Your task to perform on an android device: add a contact in the contacts app Image 0: 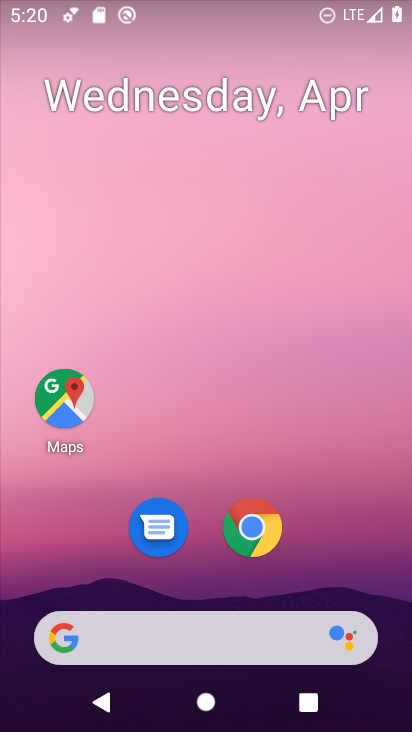
Step 0: drag from (344, 549) to (340, 5)
Your task to perform on an android device: add a contact in the contacts app Image 1: 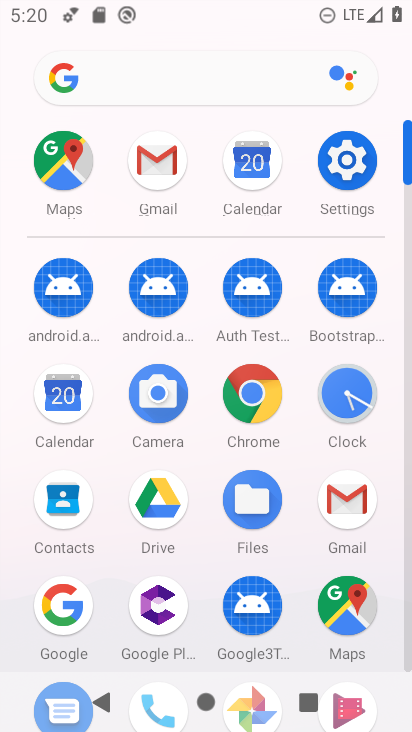
Step 1: click (73, 509)
Your task to perform on an android device: add a contact in the contacts app Image 2: 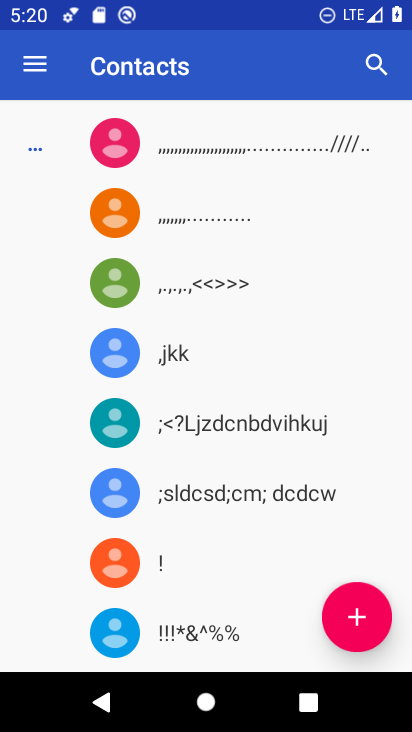
Step 2: click (366, 617)
Your task to perform on an android device: add a contact in the contacts app Image 3: 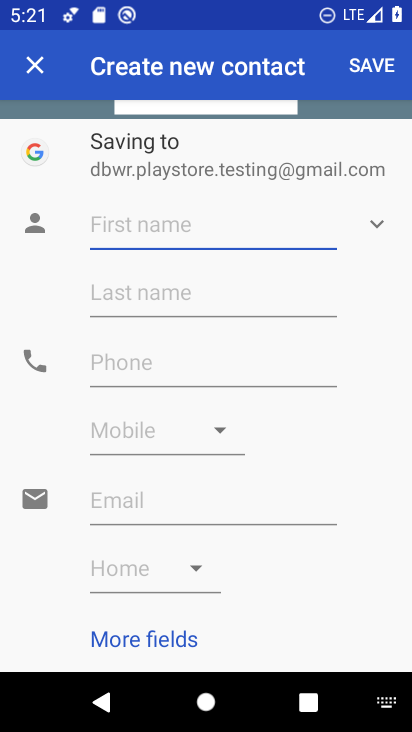
Step 3: click (140, 228)
Your task to perform on an android device: add a contact in the contacts app Image 4: 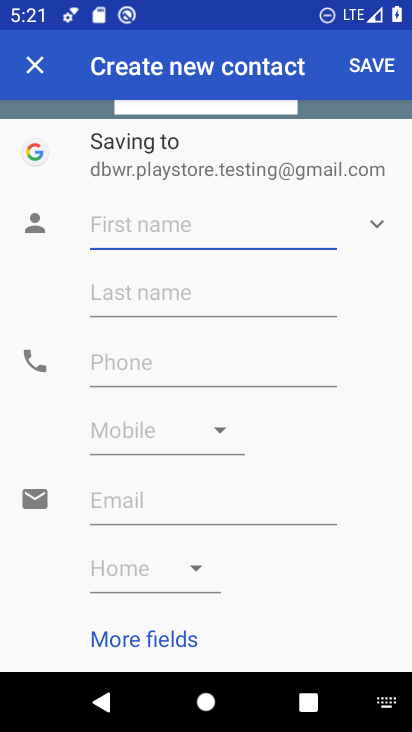
Step 4: type "sweety"
Your task to perform on an android device: add a contact in the contacts app Image 5: 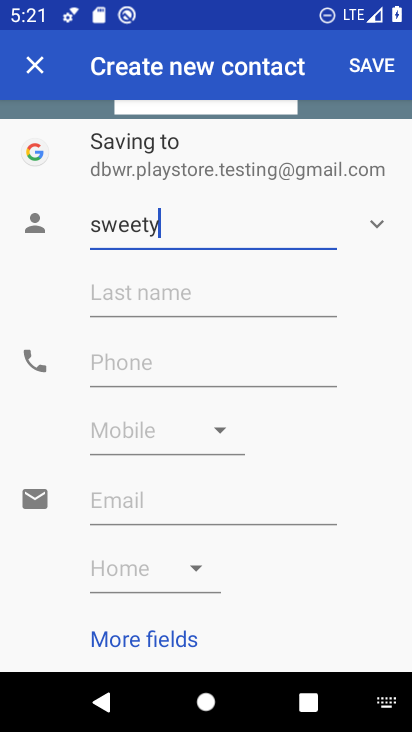
Step 5: click (210, 364)
Your task to perform on an android device: add a contact in the contacts app Image 6: 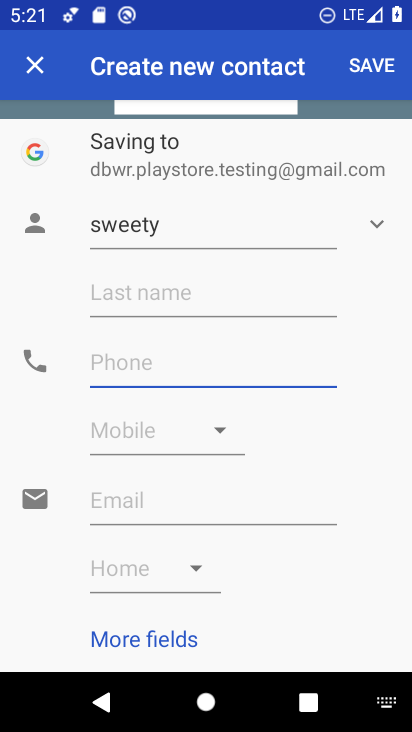
Step 6: type "67896543"
Your task to perform on an android device: add a contact in the contacts app Image 7: 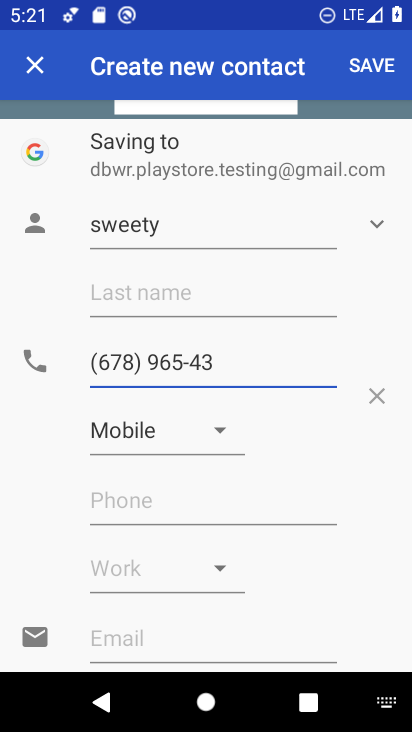
Step 7: click (386, 75)
Your task to perform on an android device: add a contact in the contacts app Image 8: 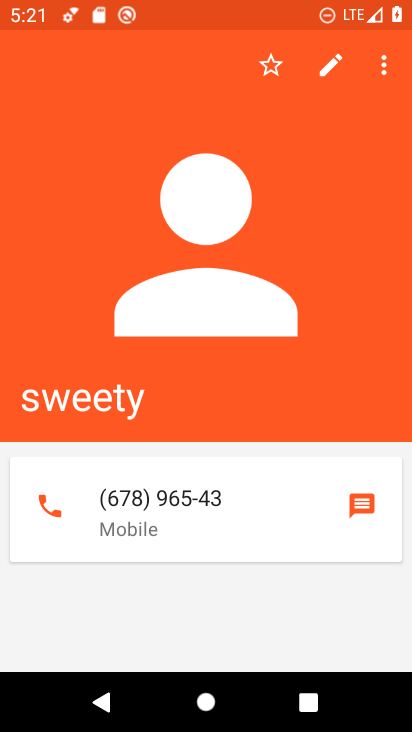
Step 8: task complete